Your task to perform on an android device: Open calendar and show me the fourth week of next month Image 0: 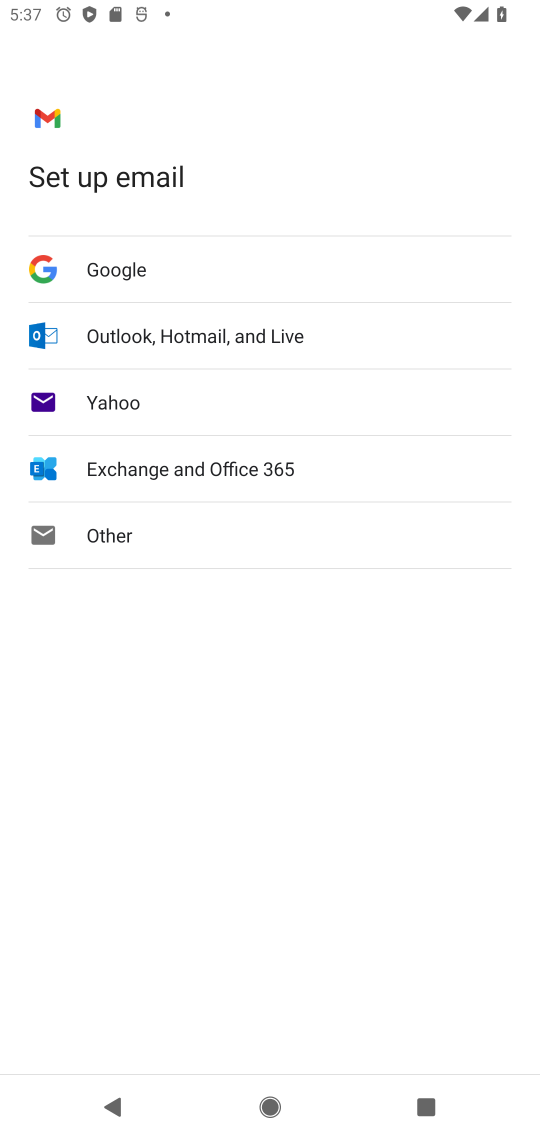
Step 0: press home button
Your task to perform on an android device: Open calendar and show me the fourth week of next month Image 1: 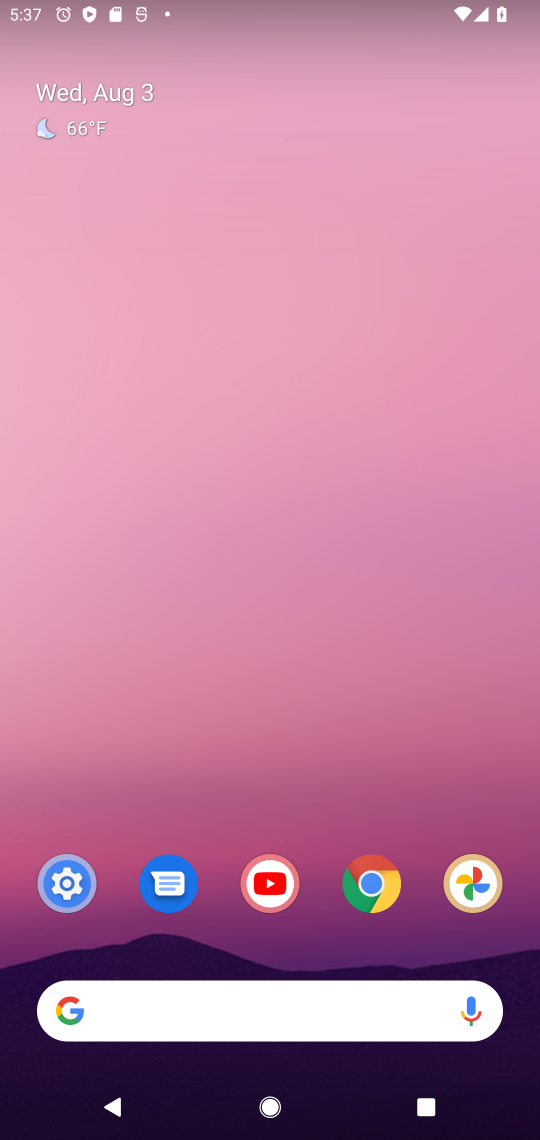
Step 1: click (299, 387)
Your task to perform on an android device: Open calendar and show me the fourth week of next month Image 2: 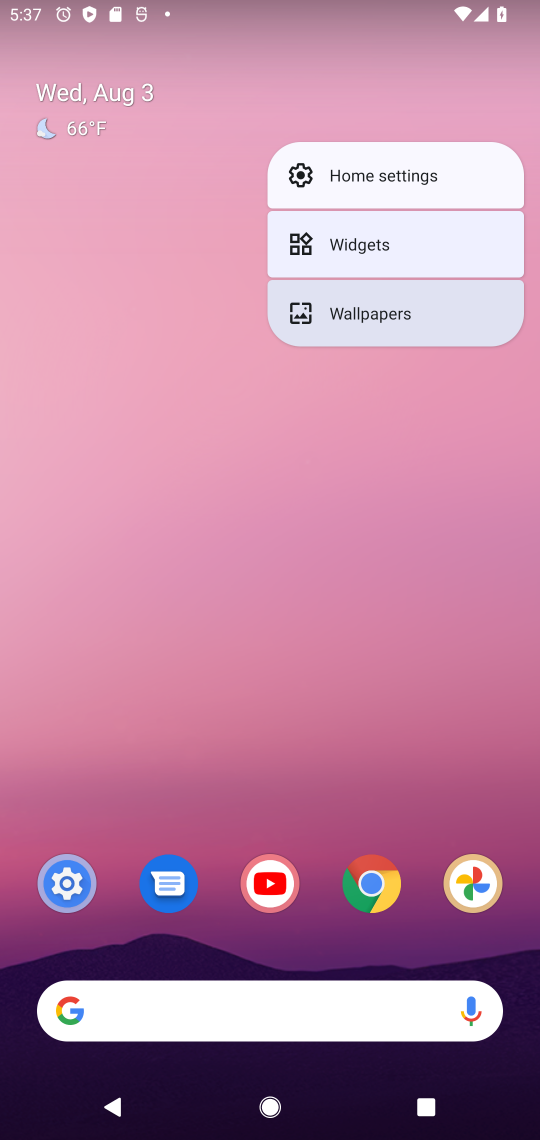
Step 2: drag from (165, 990) to (210, 196)
Your task to perform on an android device: Open calendar and show me the fourth week of next month Image 3: 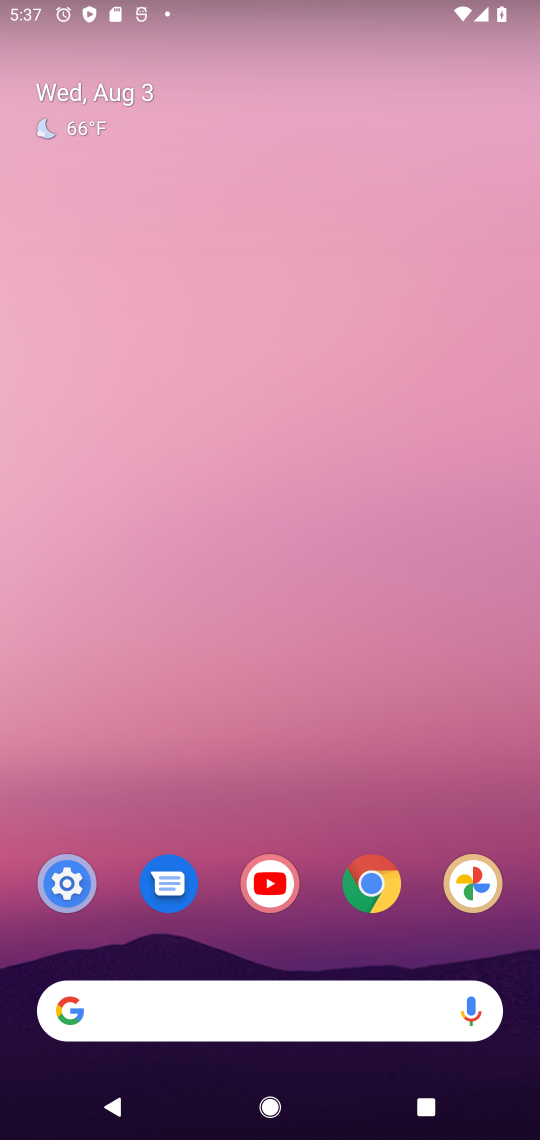
Step 3: drag from (245, 760) to (275, 305)
Your task to perform on an android device: Open calendar and show me the fourth week of next month Image 4: 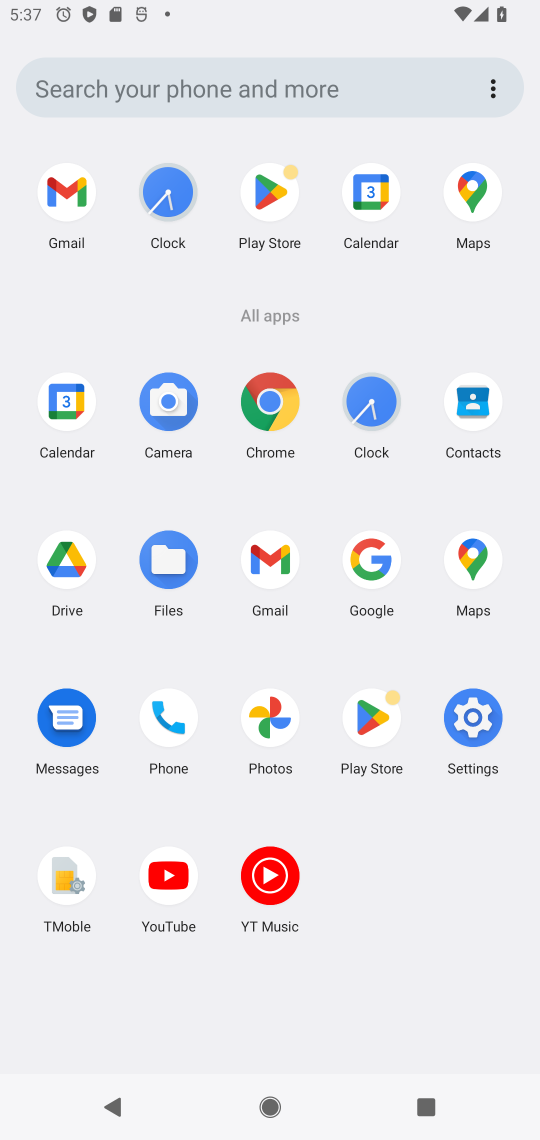
Step 4: click (377, 191)
Your task to perform on an android device: Open calendar and show me the fourth week of next month Image 5: 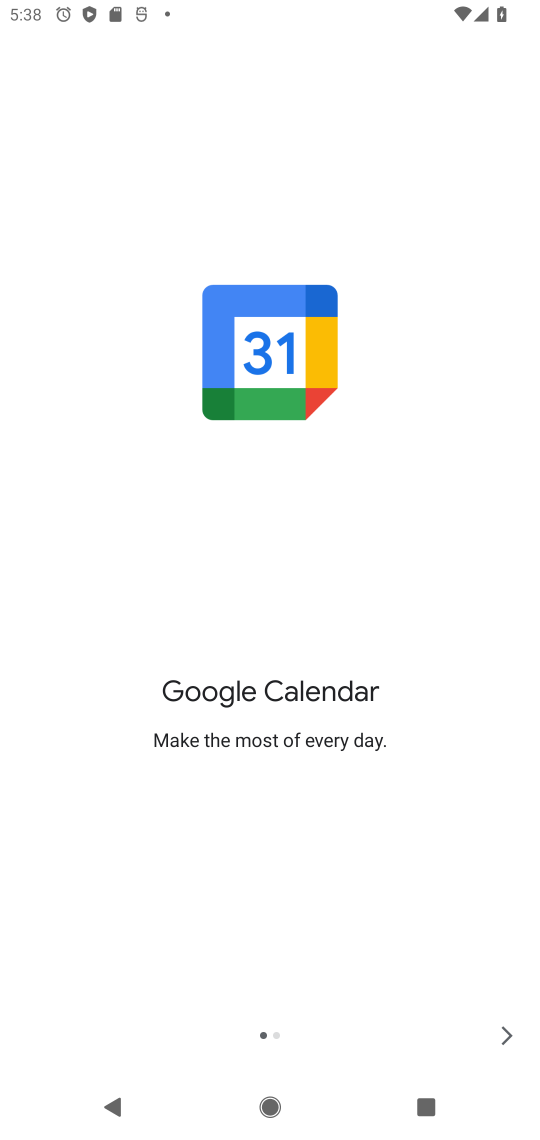
Step 5: click (506, 1031)
Your task to perform on an android device: Open calendar and show me the fourth week of next month Image 6: 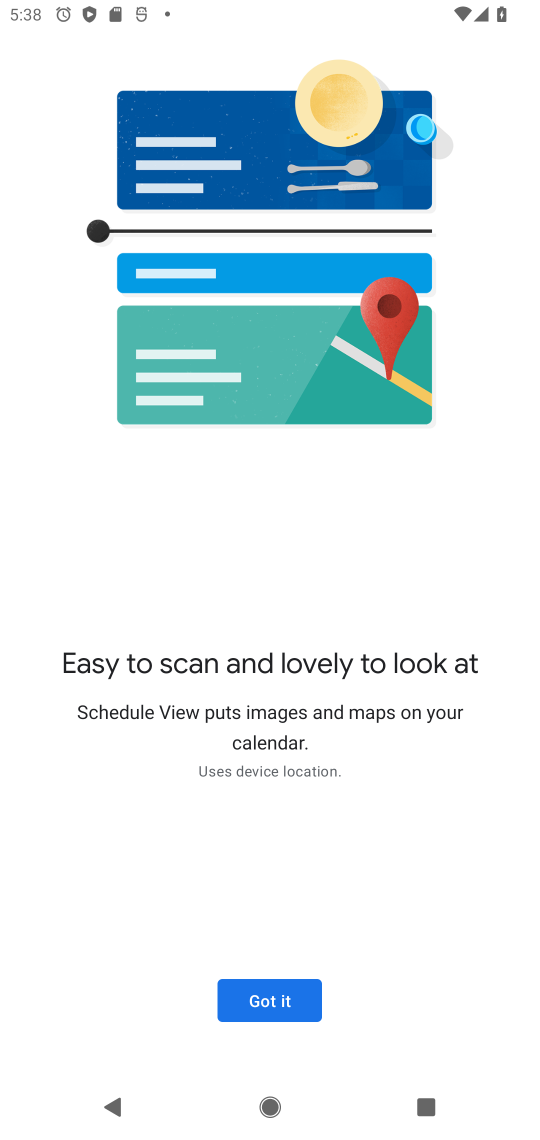
Step 6: click (259, 1006)
Your task to perform on an android device: Open calendar and show me the fourth week of next month Image 7: 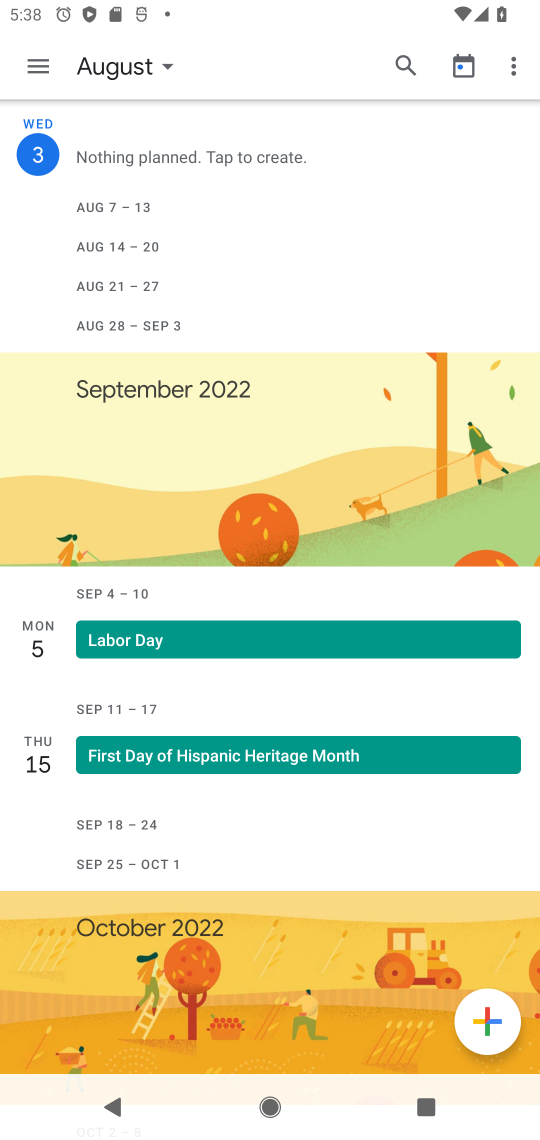
Step 7: click (116, 66)
Your task to perform on an android device: Open calendar and show me the fourth week of next month Image 8: 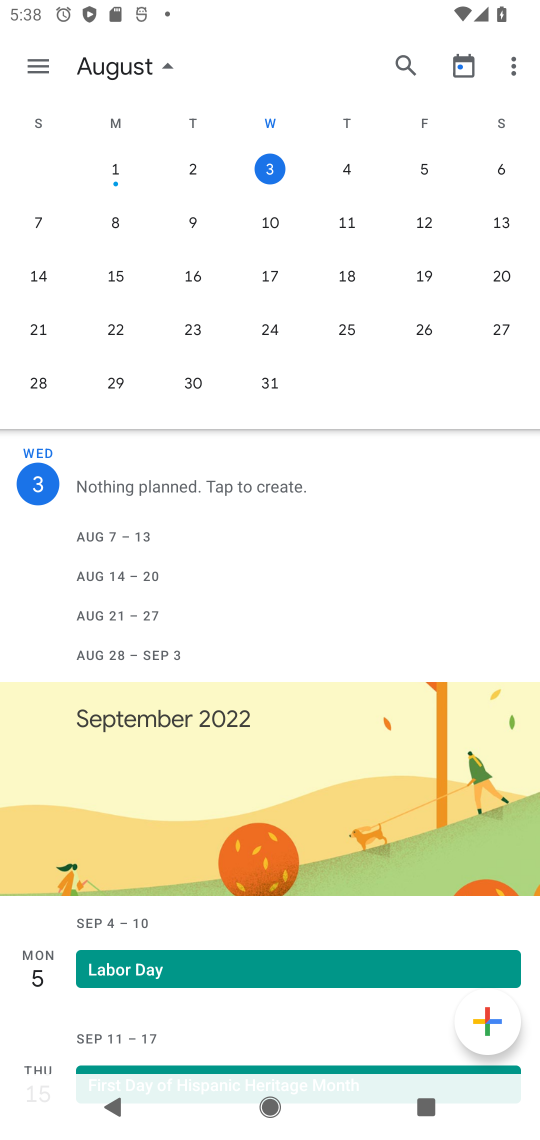
Step 8: task complete